Your task to perform on an android device: stop showing notifications on the lock screen Image 0: 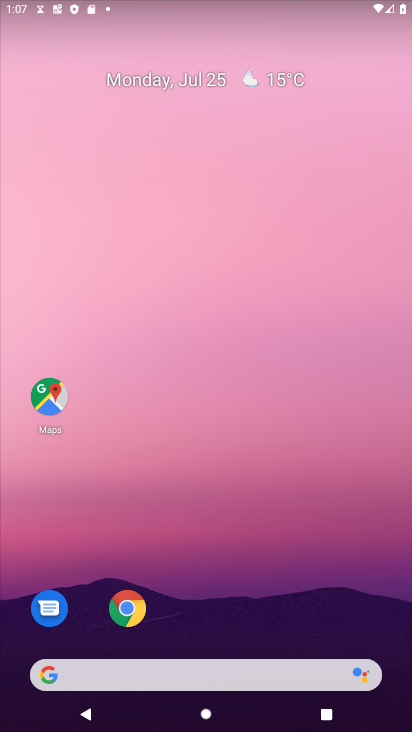
Step 0: drag from (235, 514) to (301, 62)
Your task to perform on an android device: stop showing notifications on the lock screen Image 1: 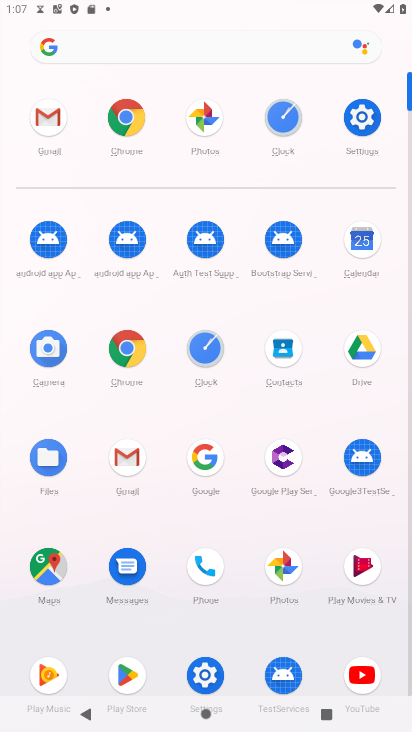
Step 1: click (361, 113)
Your task to perform on an android device: stop showing notifications on the lock screen Image 2: 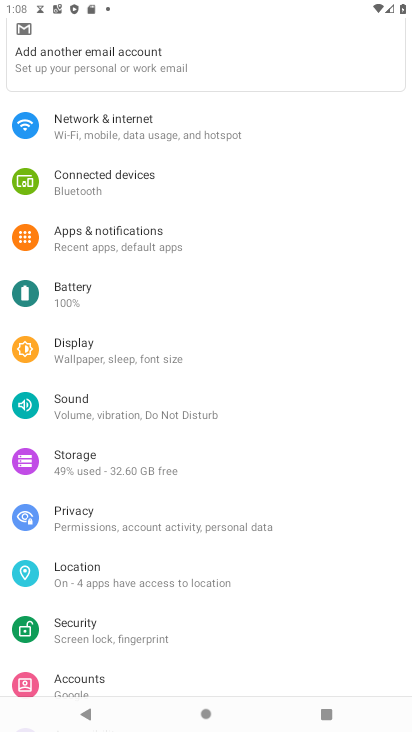
Step 2: click (206, 258)
Your task to perform on an android device: stop showing notifications on the lock screen Image 3: 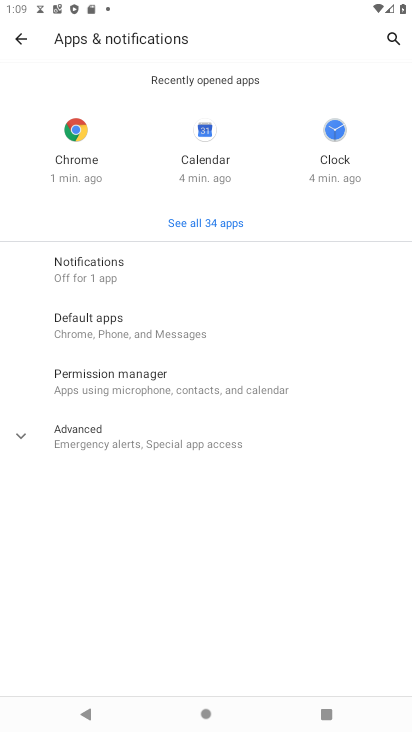
Step 3: click (150, 262)
Your task to perform on an android device: stop showing notifications on the lock screen Image 4: 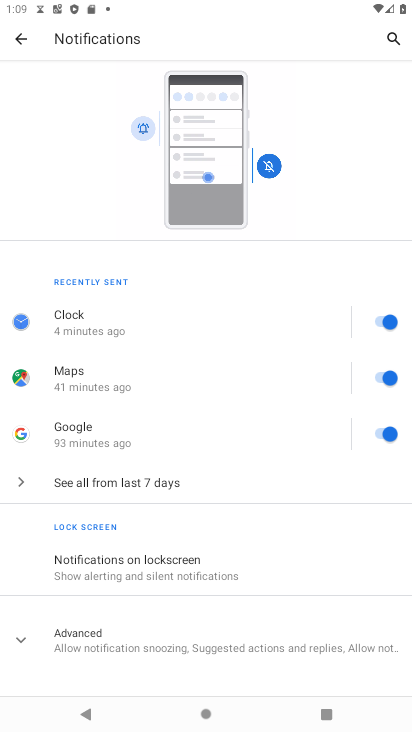
Step 4: click (157, 589)
Your task to perform on an android device: stop showing notifications on the lock screen Image 5: 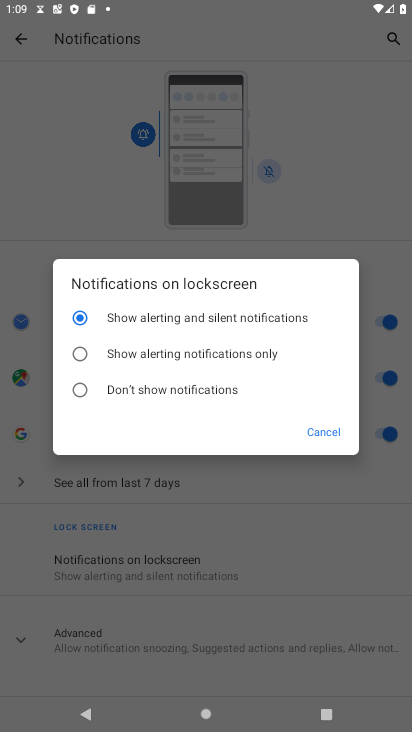
Step 5: click (170, 398)
Your task to perform on an android device: stop showing notifications on the lock screen Image 6: 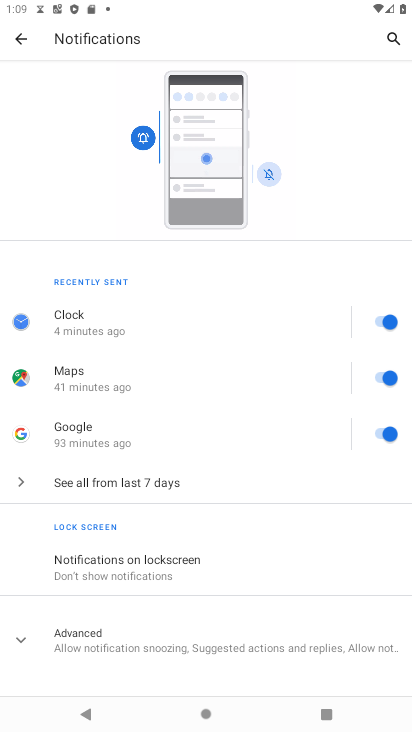
Step 6: task complete